Your task to perform on an android device: Find coffee shops on Maps Image 0: 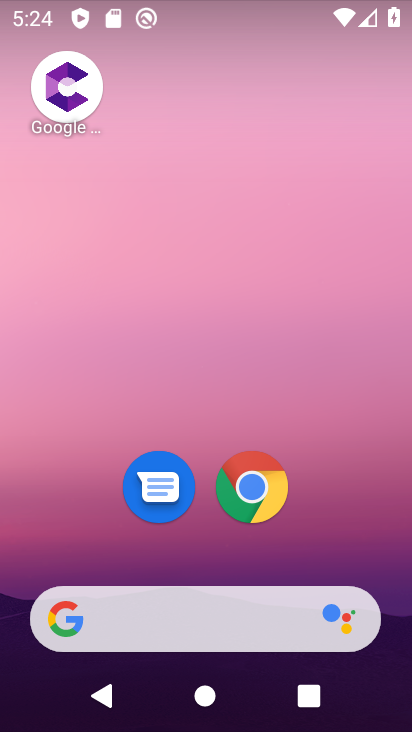
Step 0: drag from (310, 506) to (342, 44)
Your task to perform on an android device: Find coffee shops on Maps Image 1: 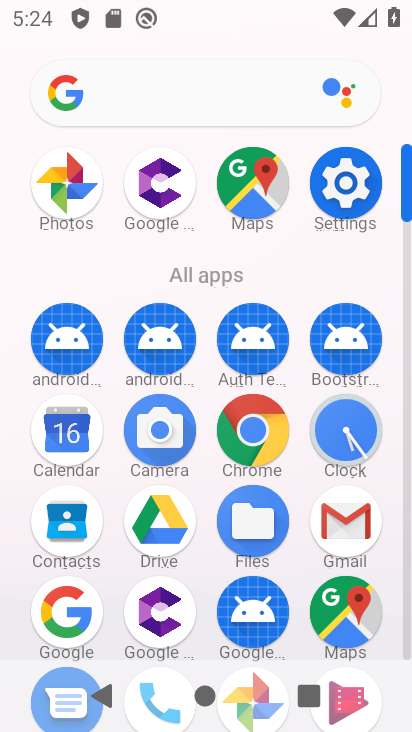
Step 1: click (250, 179)
Your task to perform on an android device: Find coffee shops on Maps Image 2: 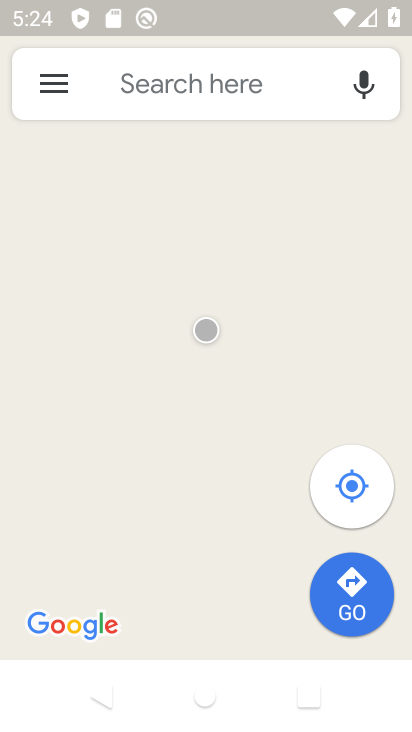
Step 2: click (230, 74)
Your task to perform on an android device: Find coffee shops on Maps Image 3: 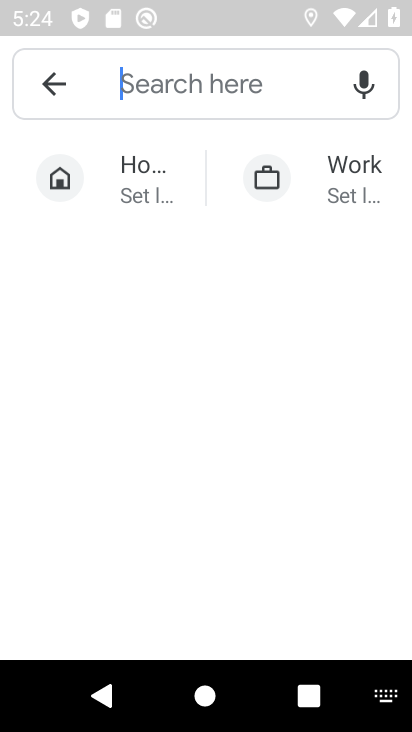
Step 3: type "coffee shops"
Your task to perform on an android device: Find coffee shops on Maps Image 4: 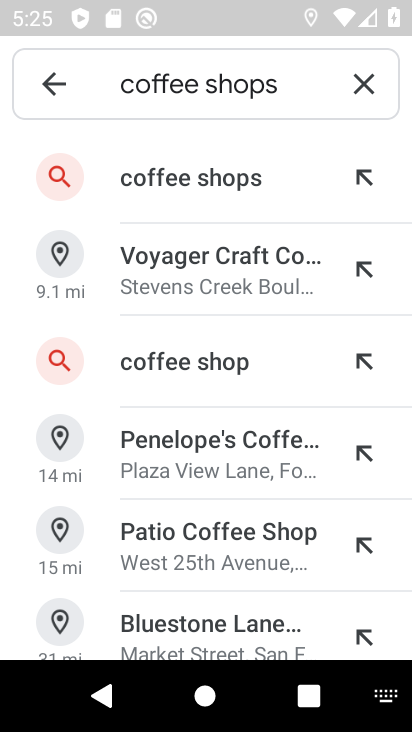
Step 4: click (240, 186)
Your task to perform on an android device: Find coffee shops on Maps Image 5: 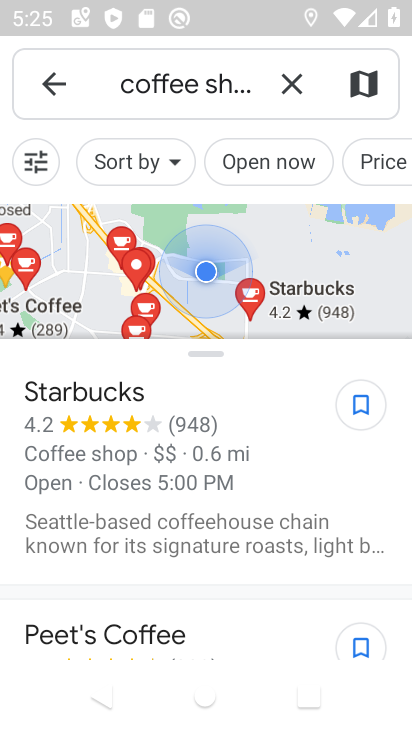
Step 5: task complete